Your task to perform on an android device: turn off priority inbox in the gmail app Image 0: 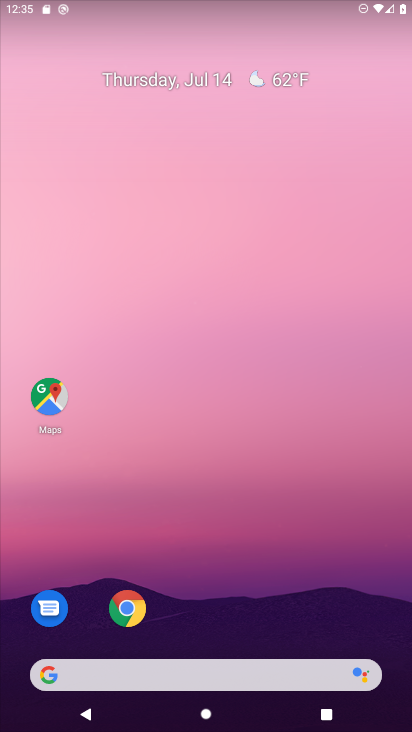
Step 0: drag from (254, 699) to (241, 71)
Your task to perform on an android device: turn off priority inbox in the gmail app Image 1: 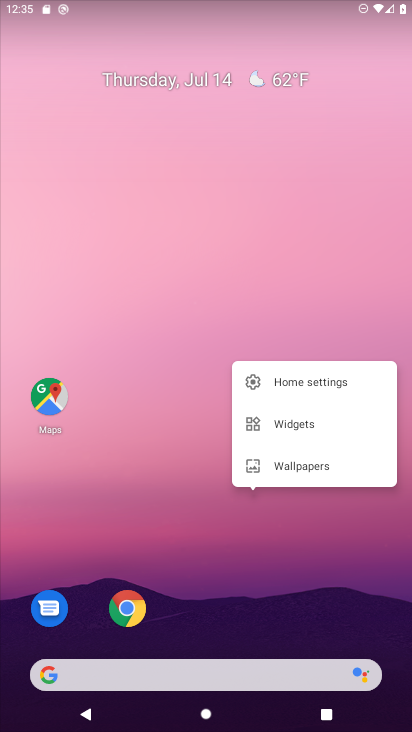
Step 1: click (250, 282)
Your task to perform on an android device: turn off priority inbox in the gmail app Image 2: 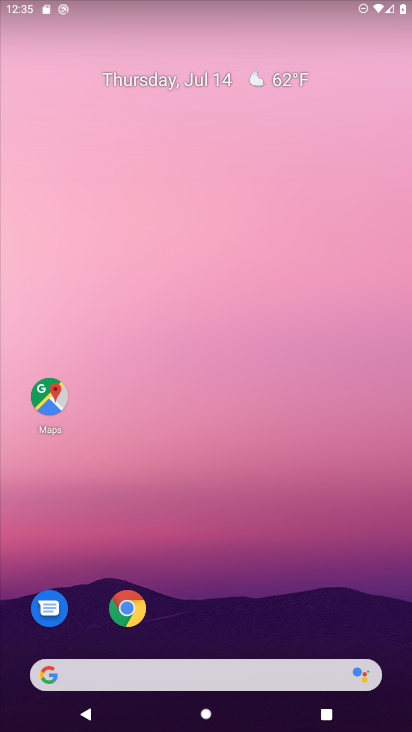
Step 2: drag from (241, 730) to (210, 127)
Your task to perform on an android device: turn off priority inbox in the gmail app Image 3: 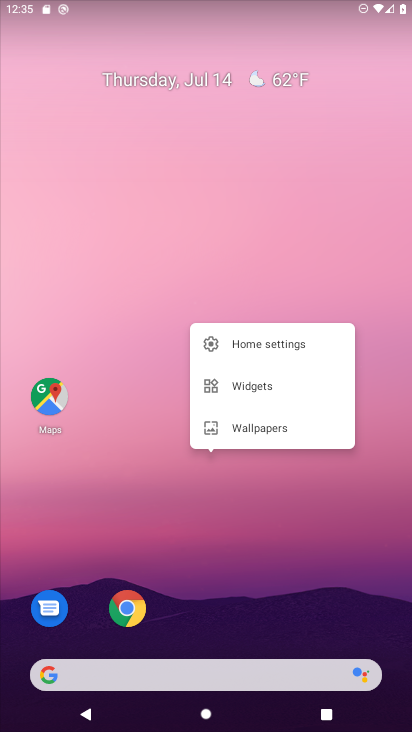
Step 3: click (279, 559)
Your task to perform on an android device: turn off priority inbox in the gmail app Image 4: 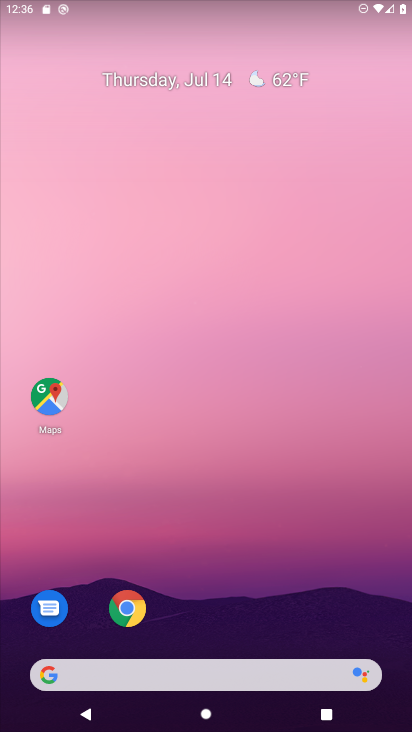
Step 4: drag from (252, 724) to (250, 116)
Your task to perform on an android device: turn off priority inbox in the gmail app Image 5: 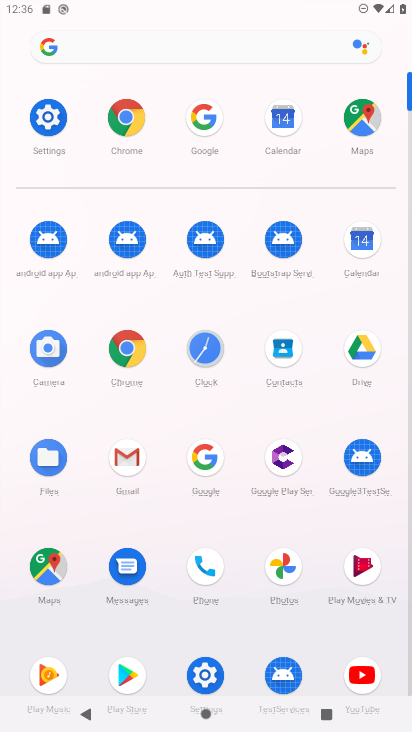
Step 5: click (123, 459)
Your task to perform on an android device: turn off priority inbox in the gmail app Image 6: 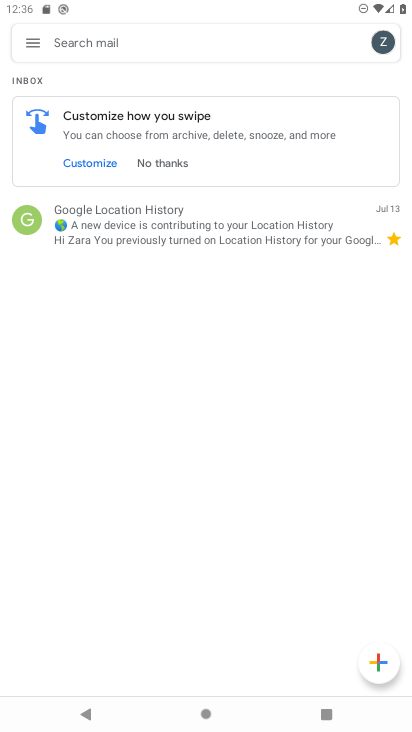
Step 6: click (30, 44)
Your task to perform on an android device: turn off priority inbox in the gmail app Image 7: 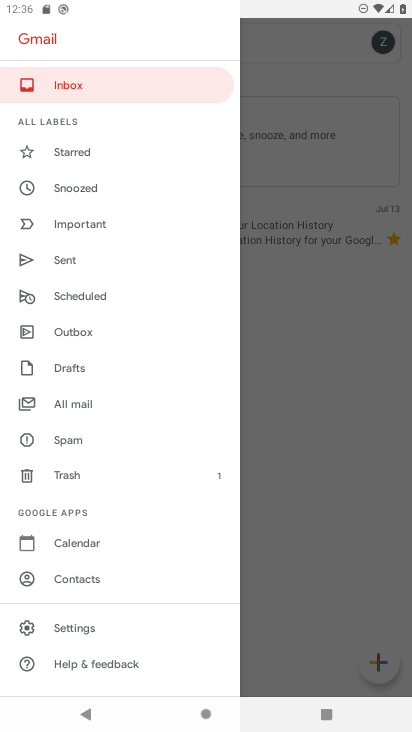
Step 7: click (78, 631)
Your task to perform on an android device: turn off priority inbox in the gmail app Image 8: 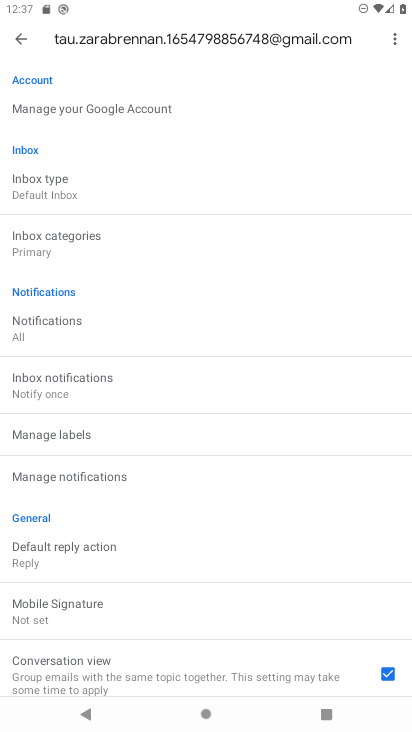
Step 8: task complete